Your task to perform on an android device: Open privacy settings Image 0: 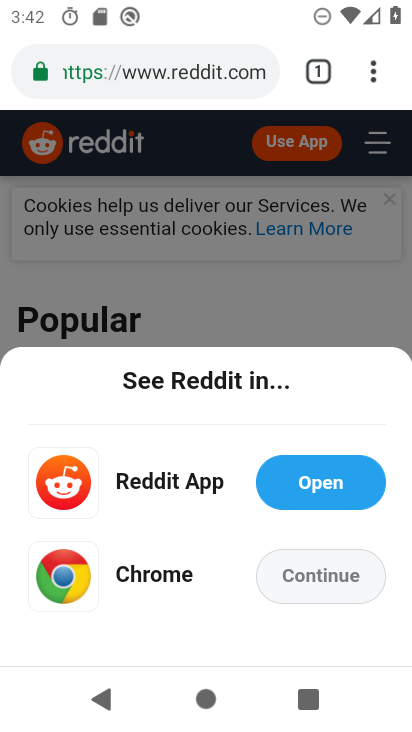
Step 0: press home button
Your task to perform on an android device: Open privacy settings Image 1: 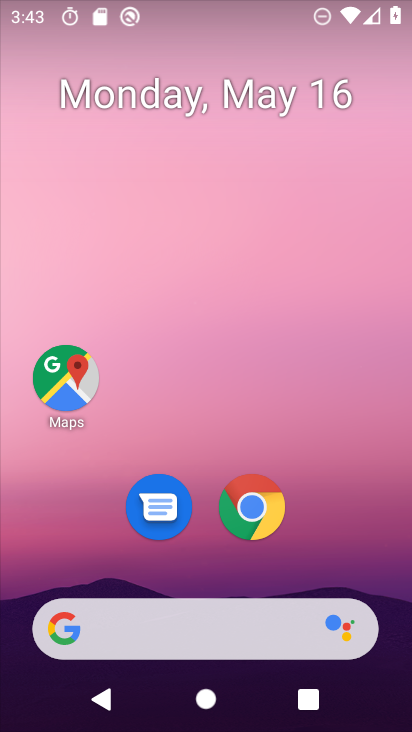
Step 1: drag from (382, 420) to (362, 21)
Your task to perform on an android device: Open privacy settings Image 2: 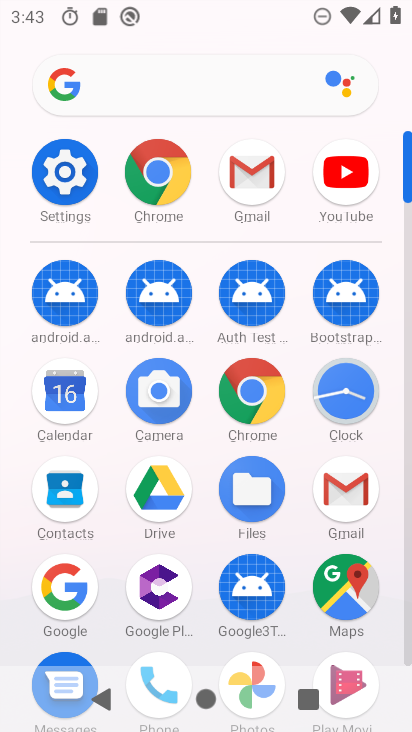
Step 2: click (71, 179)
Your task to perform on an android device: Open privacy settings Image 3: 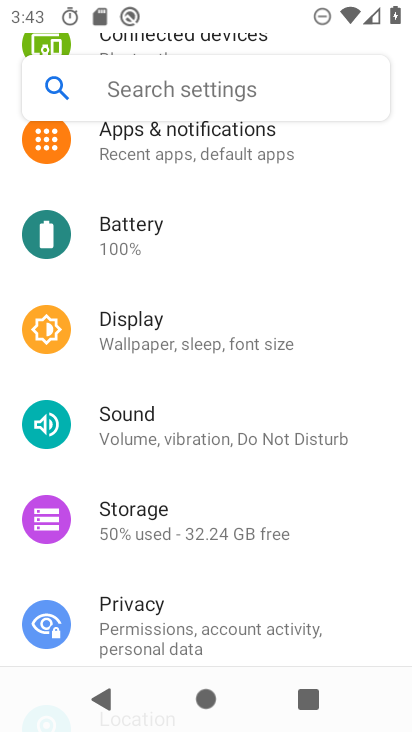
Step 3: click (156, 339)
Your task to perform on an android device: Open privacy settings Image 4: 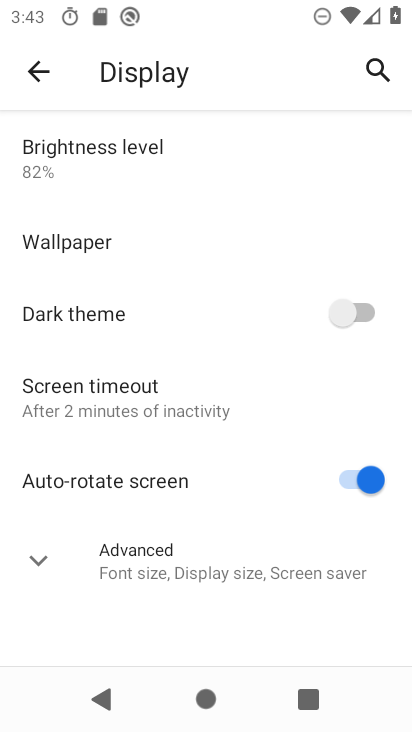
Step 4: press back button
Your task to perform on an android device: Open privacy settings Image 5: 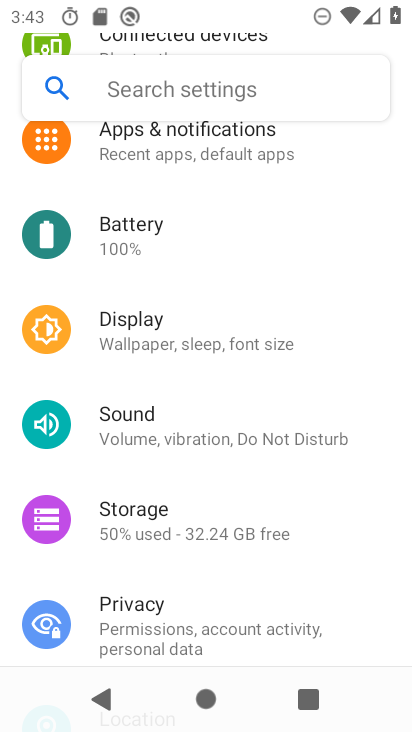
Step 5: drag from (252, 221) to (278, 542)
Your task to perform on an android device: Open privacy settings Image 6: 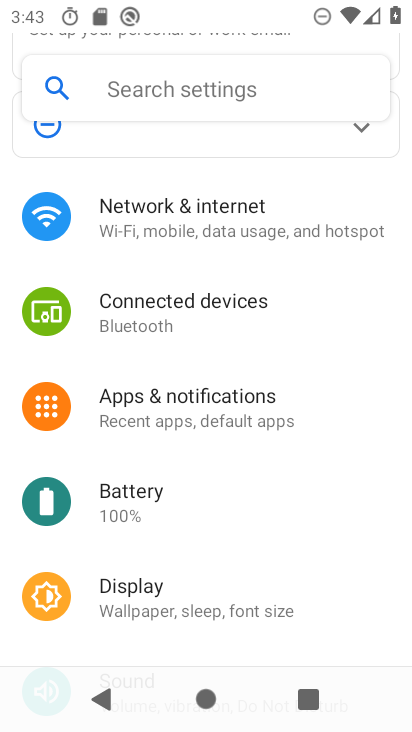
Step 6: drag from (222, 585) to (272, 194)
Your task to perform on an android device: Open privacy settings Image 7: 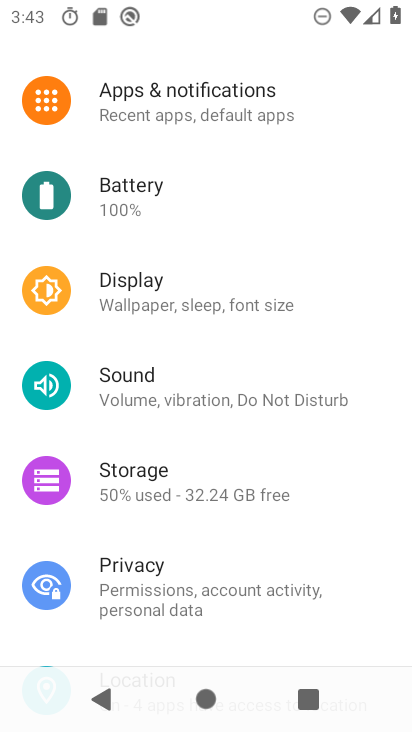
Step 7: click (152, 593)
Your task to perform on an android device: Open privacy settings Image 8: 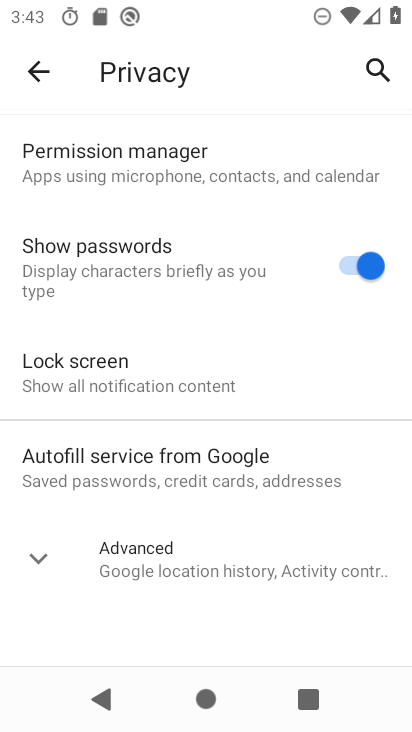
Step 8: task complete